Your task to perform on an android device: turn on improve location accuracy Image 0: 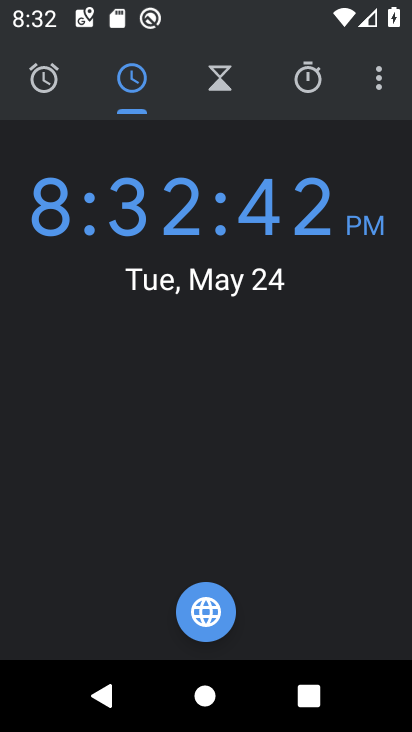
Step 0: press home button
Your task to perform on an android device: turn on improve location accuracy Image 1: 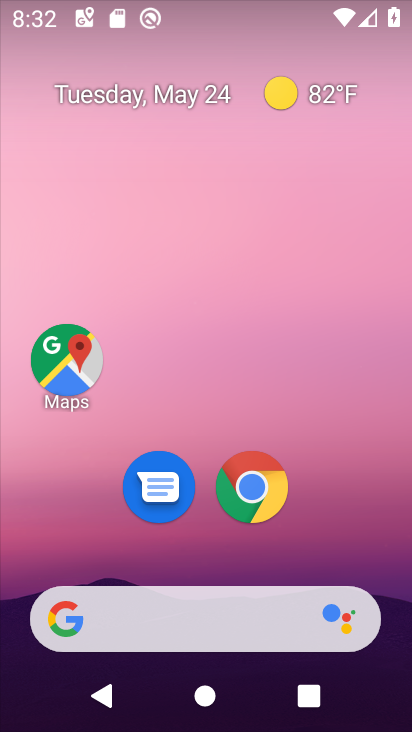
Step 1: drag from (341, 500) to (345, 127)
Your task to perform on an android device: turn on improve location accuracy Image 2: 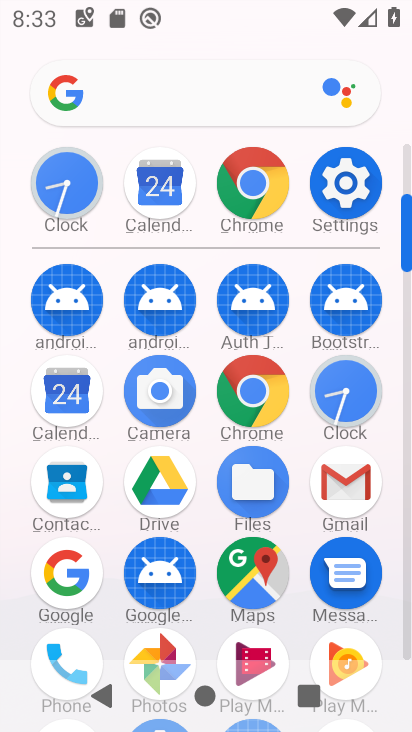
Step 2: click (348, 204)
Your task to perform on an android device: turn on improve location accuracy Image 3: 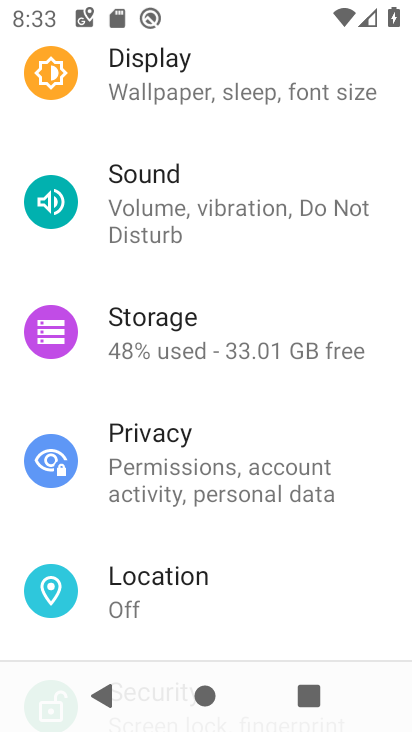
Step 3: click (162, 571)
Your task to perform on an android device: turn on improve location accuracy Image 4: 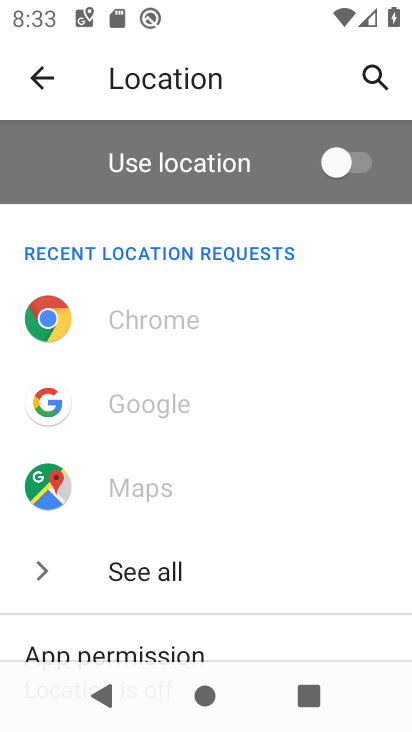
Step 4: drag from (231, 600) to (283, 277)
Your task to perform on an android device: turn on improve location accuracy Image 5: 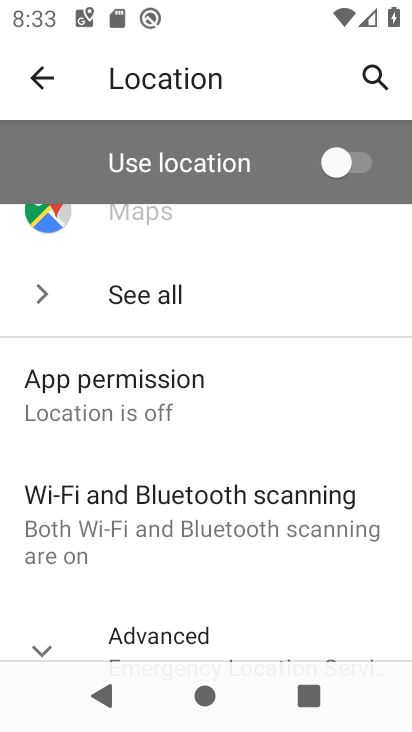
Step 5: drag from (287, 572) to (287, 322)
Your task to perform on an android device: turn on improve location accuracy Image 6: 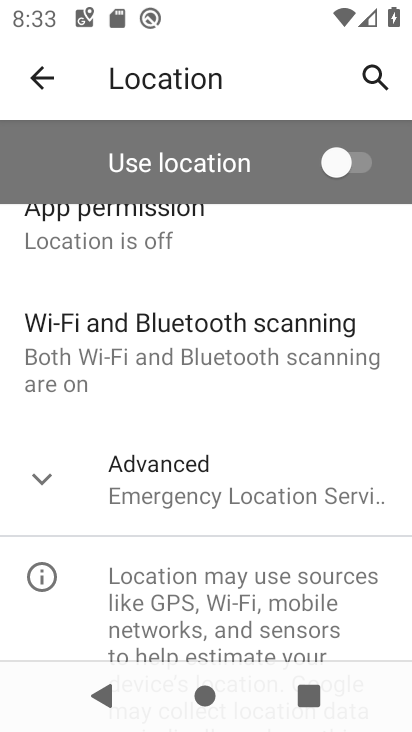
Step 6: click (280, 489)
Your task to perform on an android device: turn on improve location accuracy Image 7: 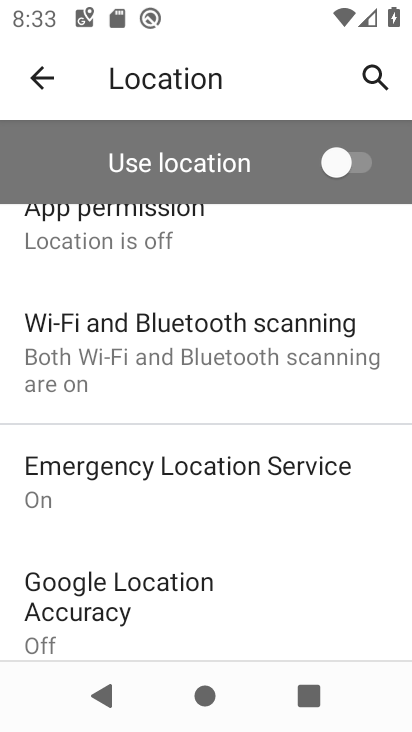
Step 7: drag from (254, 585) to (264, 330)
Your task to perform on an android device: turn on improve location accuracy Image 8: 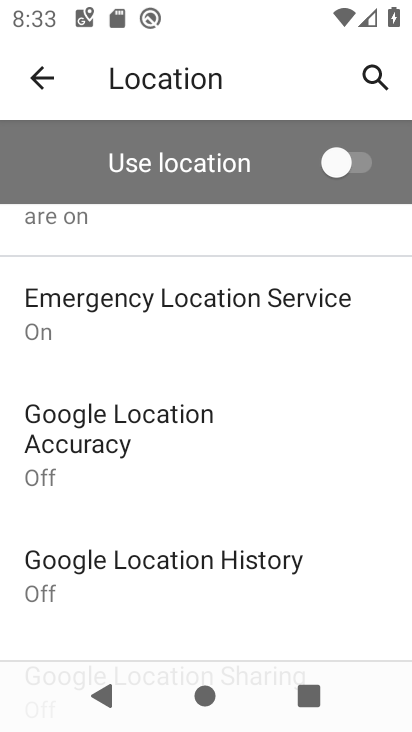
Step 8: click (145, 446)
Your task to perform on an android device: turn on improve location accuracy Image 9: 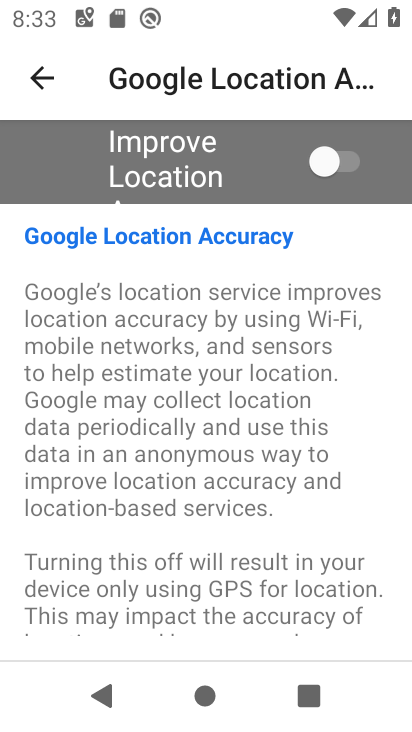
Step 9: click (347, 172)
Your task to perform on an android device: turn on improve location accuracy Image 10: 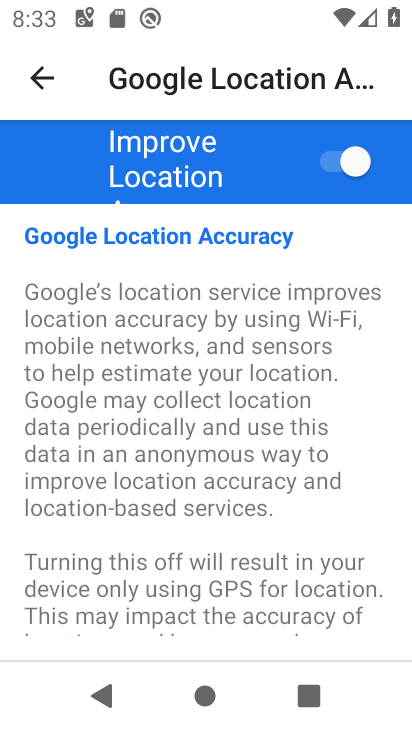
Step 10: task complete